Your task to perform on an android device: open sync settings in chrome Image 0: 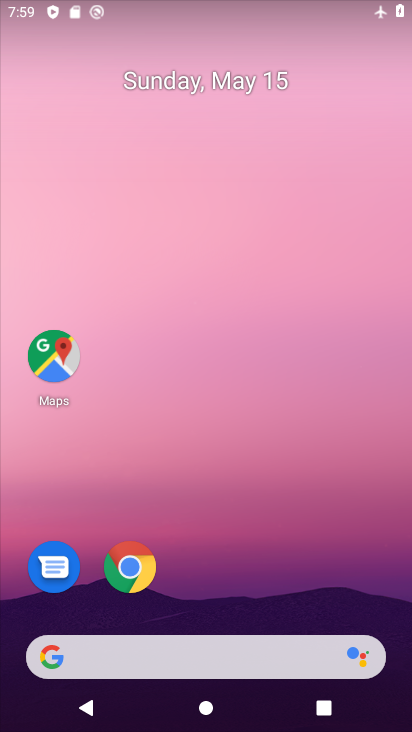
Step 0: click (119, 563)
Your task to perform on an android device: open sync settings in chrome Image 1: 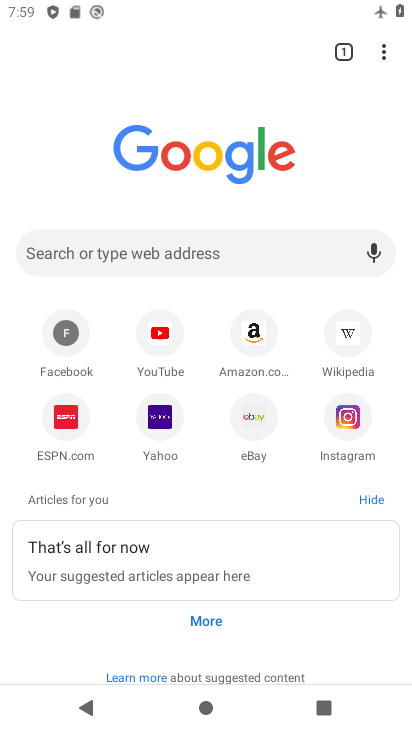
Step 1: drag from (385, 55) to (206, 442)
Your task to perform on an android device: open sync settings in chrome Image 2: 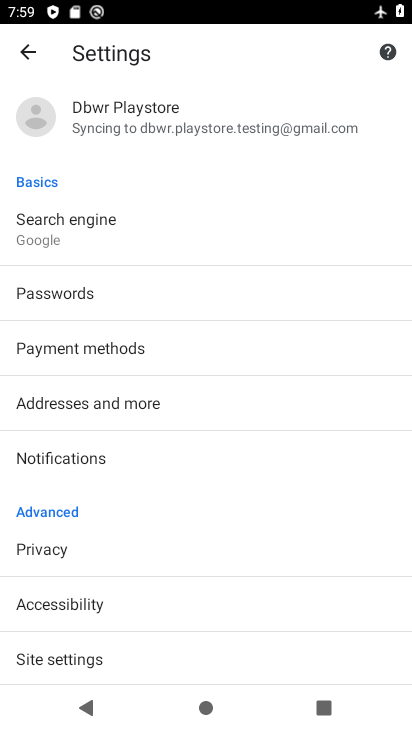
Step 2: click (127, 119)
Your task to perform on an android device: open sync settings in chrome Image 3: 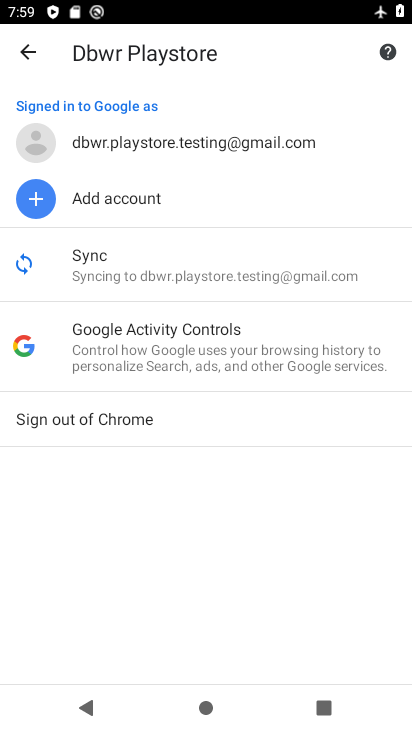
Step 3: task complete